Your task to perform on an android device: toggle sleep mode Image 0: 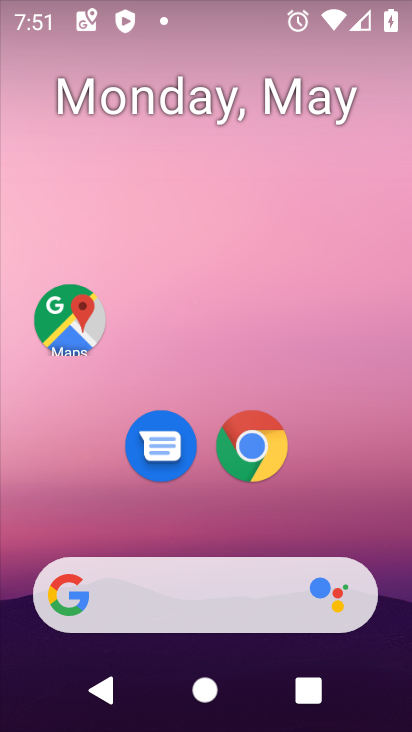
Step 0: drag from (312, 493) to (211, 76)
Your task to perform on an android device: toggle sleep mode Image 1: 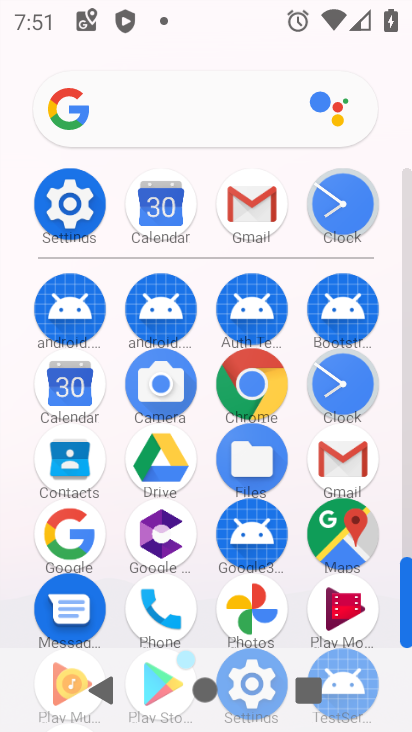
Step 1: click (75, 210)
Your task to perform on an android device: toggle sleep mode Image 2: 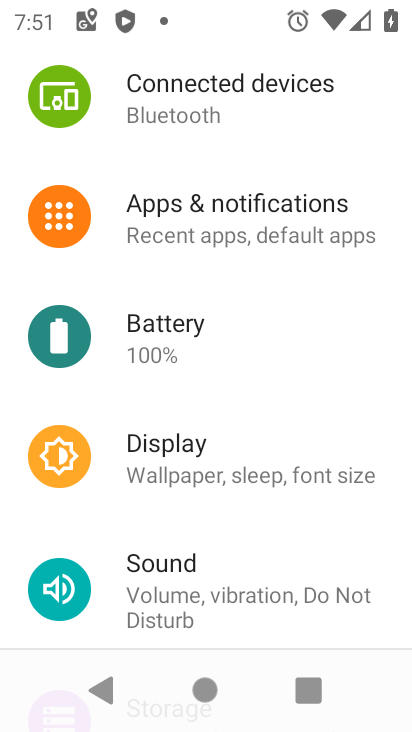
Step 2: click (141, 464)
Your task to perform on an android device: toggle sleep mode Image 3: 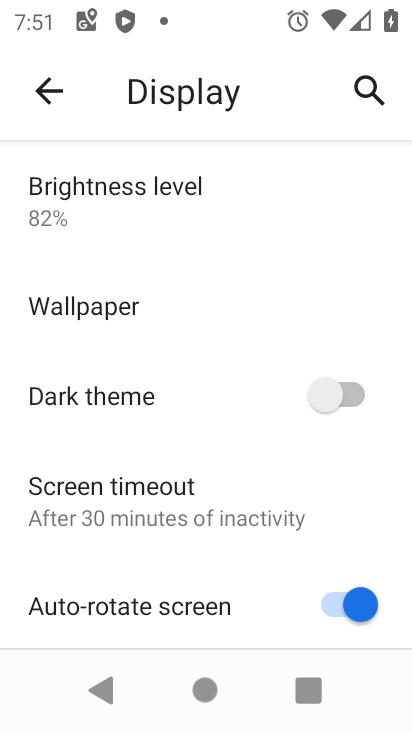
Step 3: task complete